Your task to perform on an android device: turn on airplane mode Image 0: 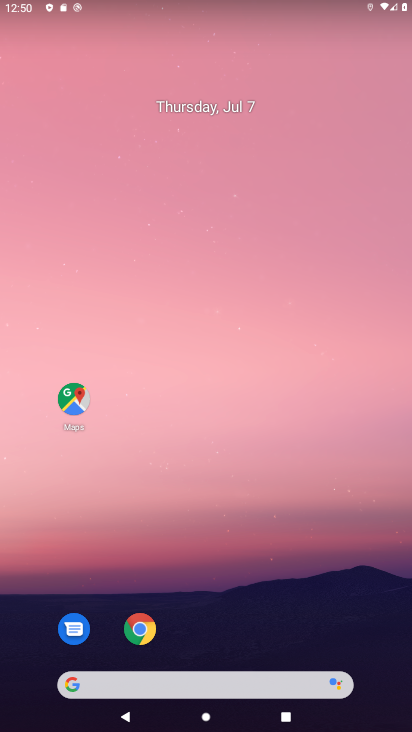
Step 0: drag from (205, 614) to (273, 62)
Your task to perform on an android device: turn on airplane mode Image 1: 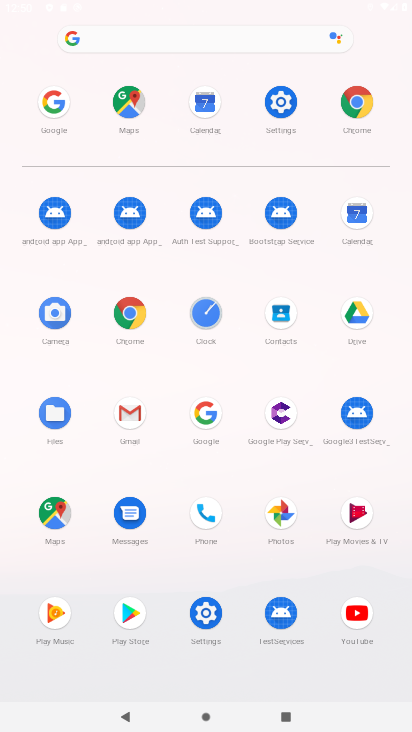
Step 1: click (278, 105)
Your task to perform on an android device: turn on airplane mode Image 2: 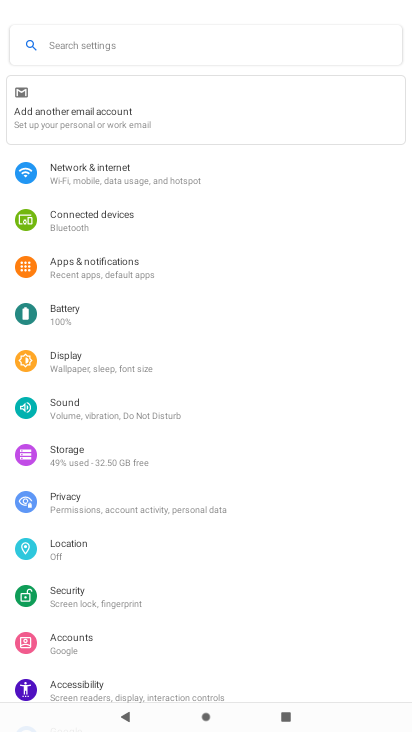
Step 2: click (126, 172)
Your task to perform on an android device: turn on airplane mode Image 3: 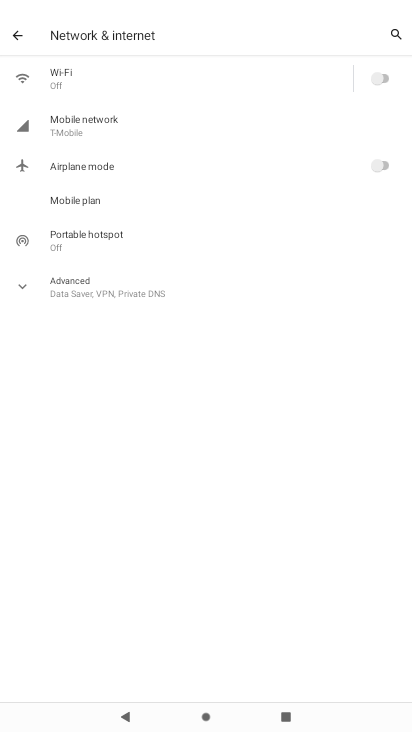
Step 3: click (106, 167)
Your task to perform on an android device: turn on airplane mode Image 4: 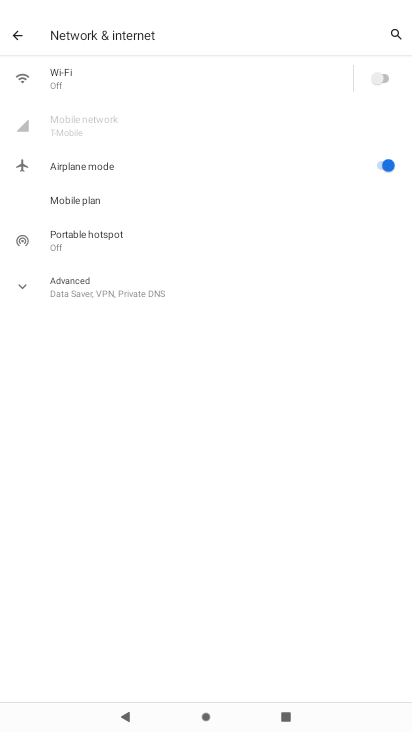
Step 4: task complete